Your task to perform on an android device: Go to Google Image 0: 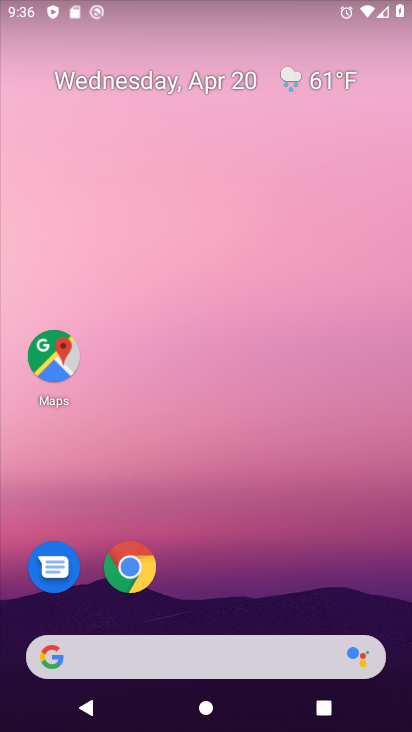
Step 0: drag from (207, 592) to (214, 137)
Your task to perform on an android device: Go to Google Image 1: 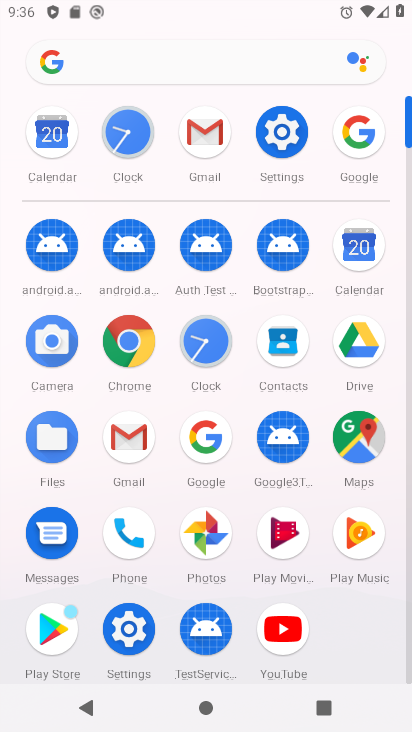
Step 1: click (356, 135)
Your task to perform on an android device: Go to Google Image 2: 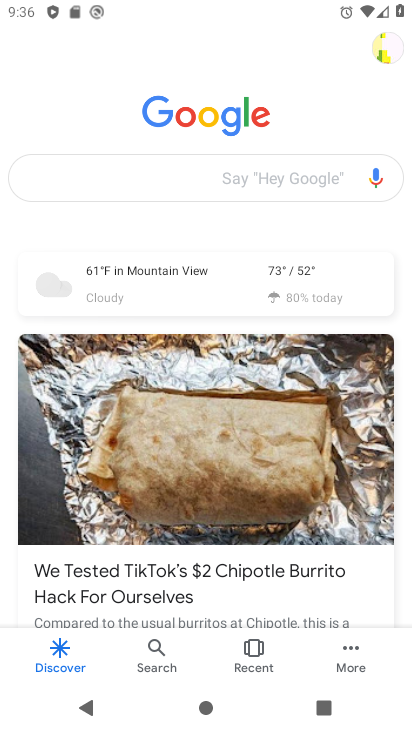
Step 2: task complete